Your task to perform on an android device: change text size in settings app Image 0: 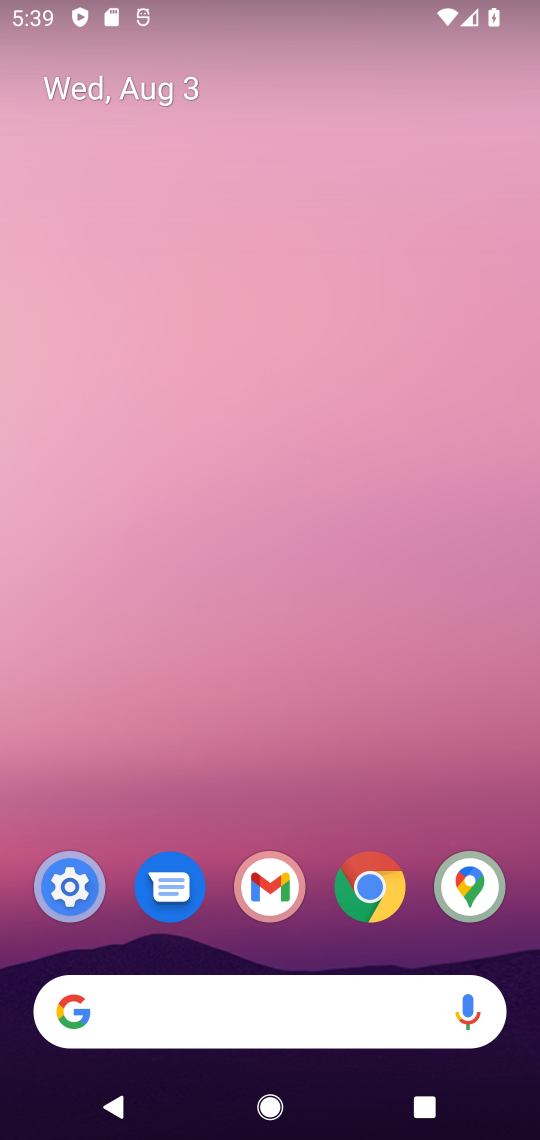
Step 0: drag from (277, 920) to (427, 12)
Your task to perform on an android device: change text size in settings app Image 1: 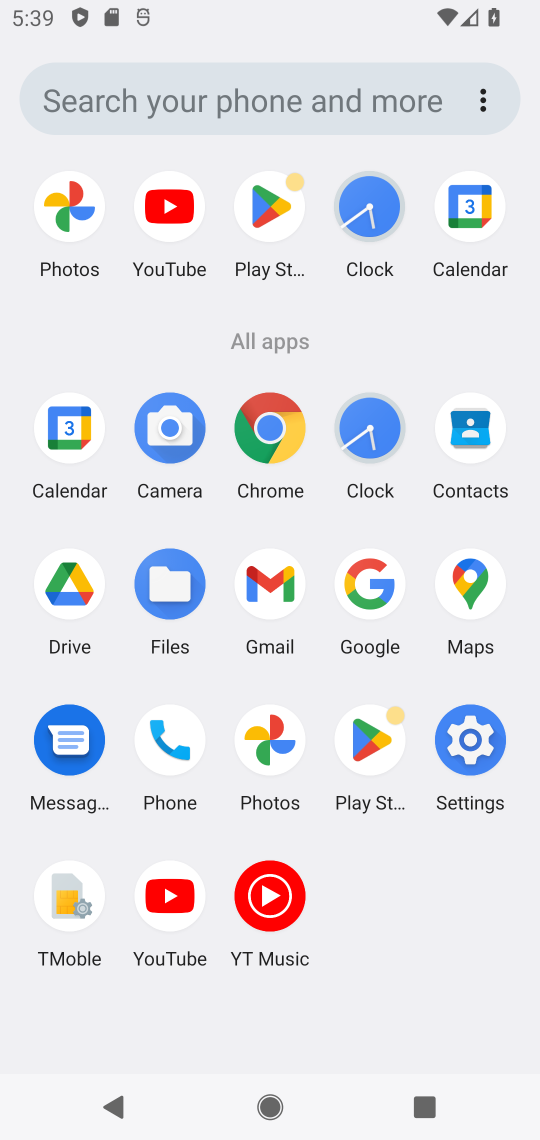
Step 1: click (463, 759)
Your task to perform on an android device: change text size in settings app Image 2: 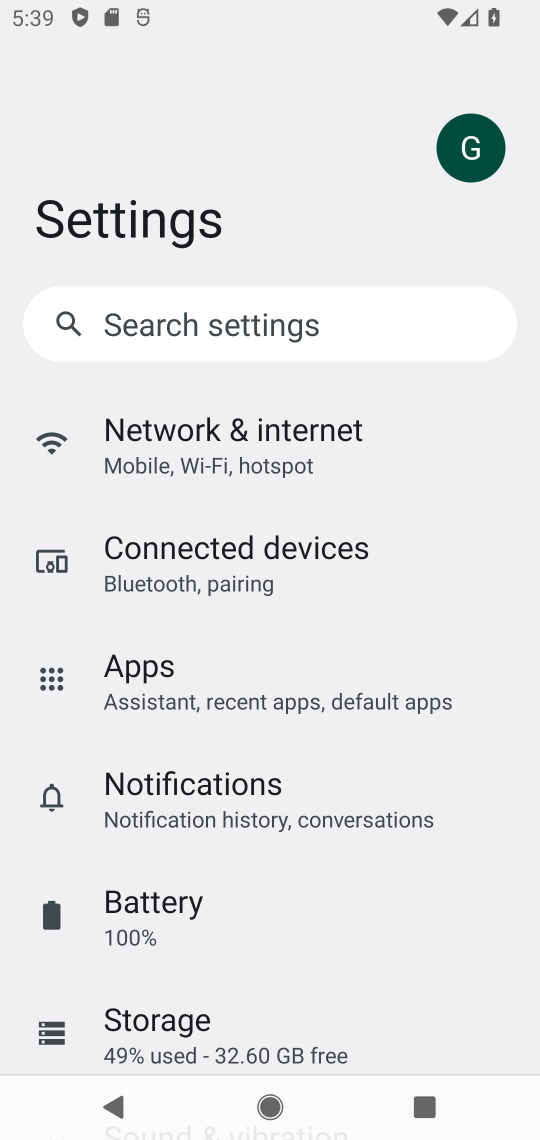
Step 2: drag from (357, 936) to (351, 328)
Your task to perform on an android device: change text size in settings app Image 3: 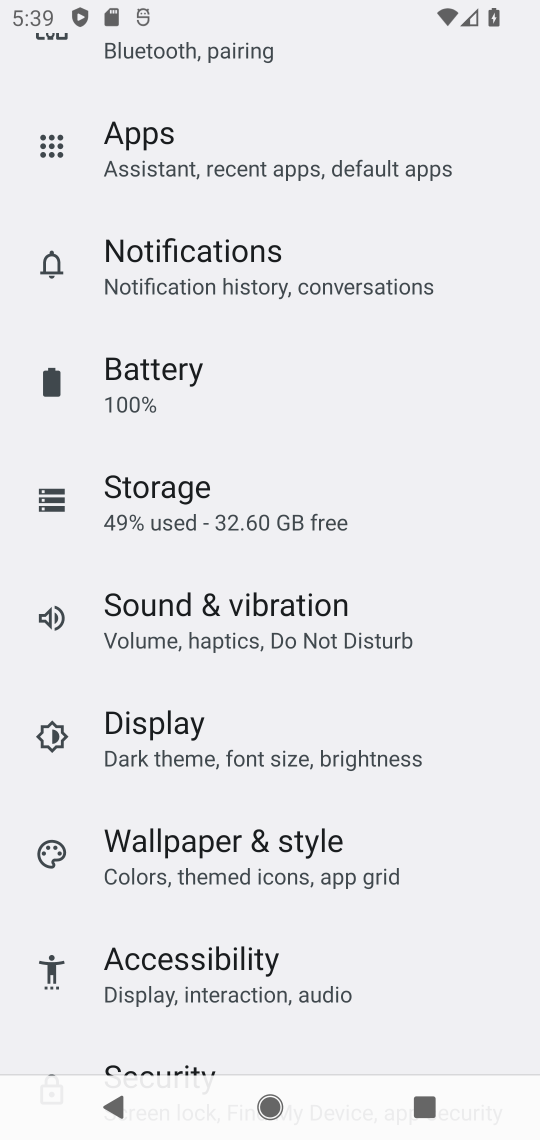
Step 3: click (219, 754)
Your task to perform on an android device: change text size in settings app Image 4: 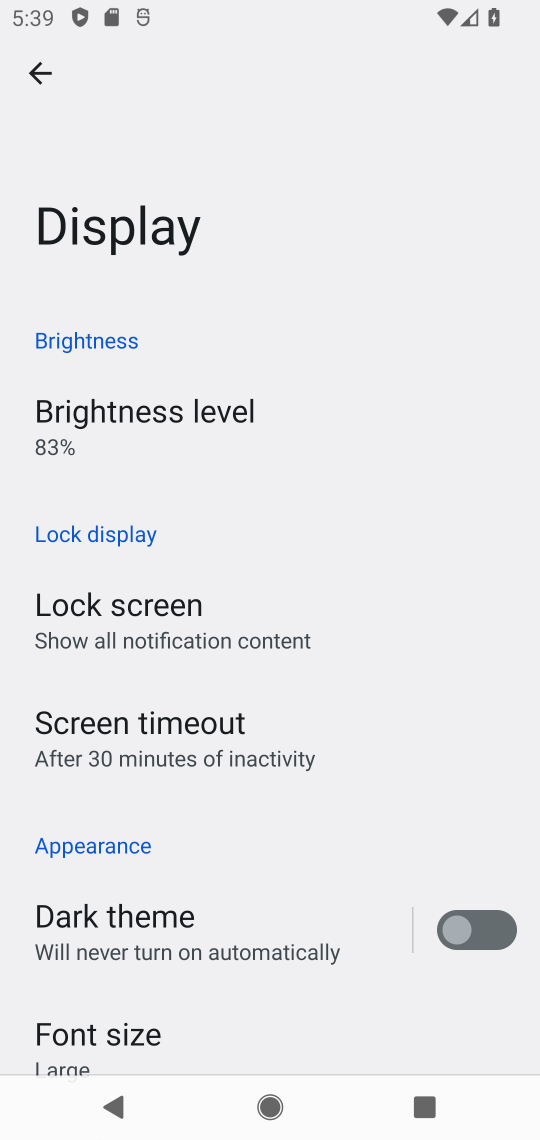
Step 4: drag from (246, 908) to (237, 372)
Your task to perform on an android device: change text size in settings app Image 5: 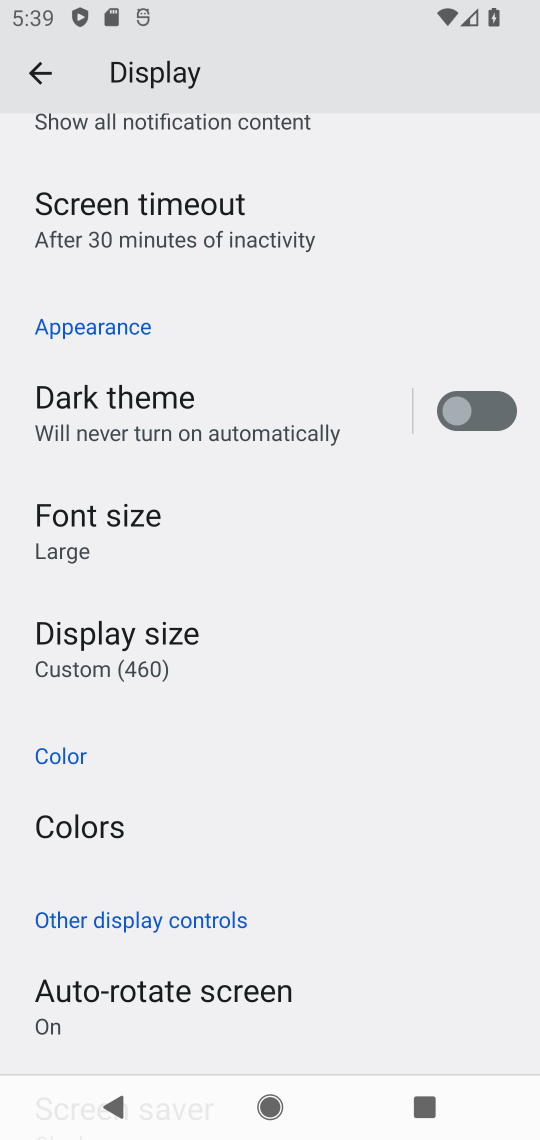
Step 5: click (109, 538)
Your task to perform on an android device: change text size in settings app Image 6: 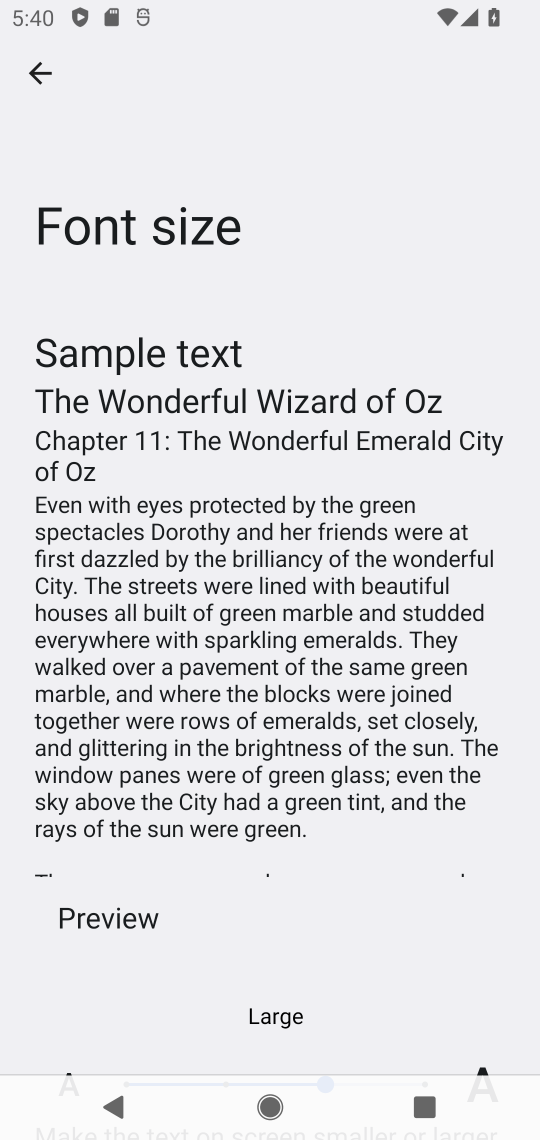
Step 6: task complete